Your task to perform on an android device: Go to Yahoo.com Image 0: 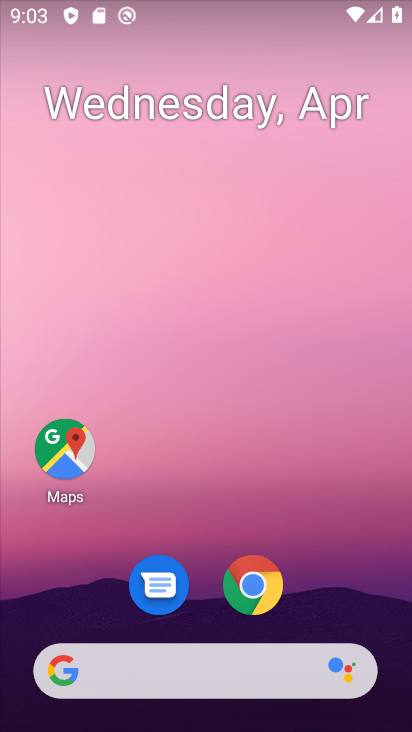
Step 0: click (237, 673)
Your task to perform on an android device: Go to Yahoo.com Image 1: 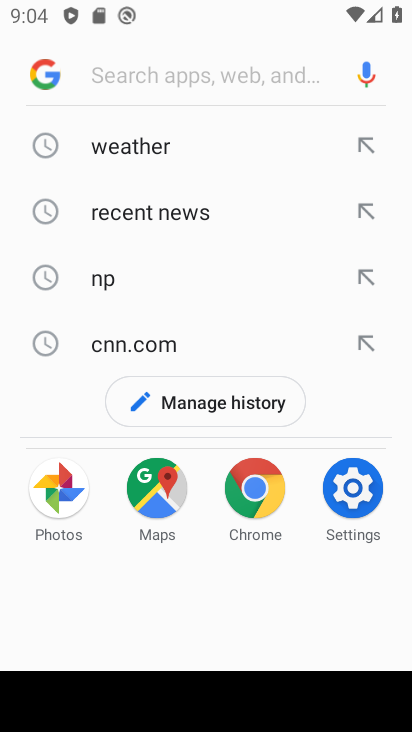
Step 1: type "yahoo.com"
Your task to perform on an android device: Go to Yahoo.com Image 2: 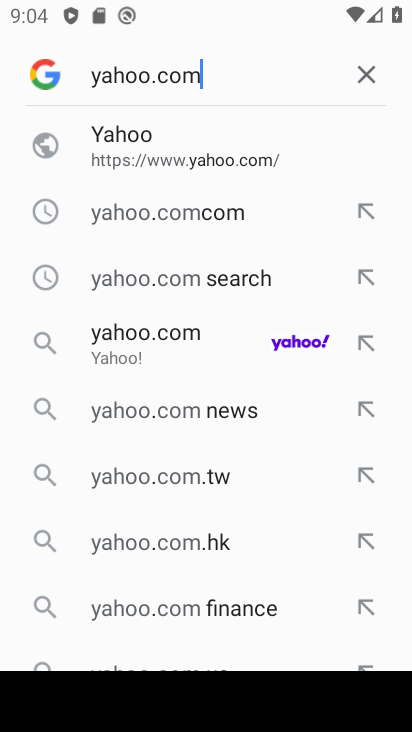
Step 2: click (301, 335)
Your task to perform on an android device: Go to Yahoo.com Image 3: 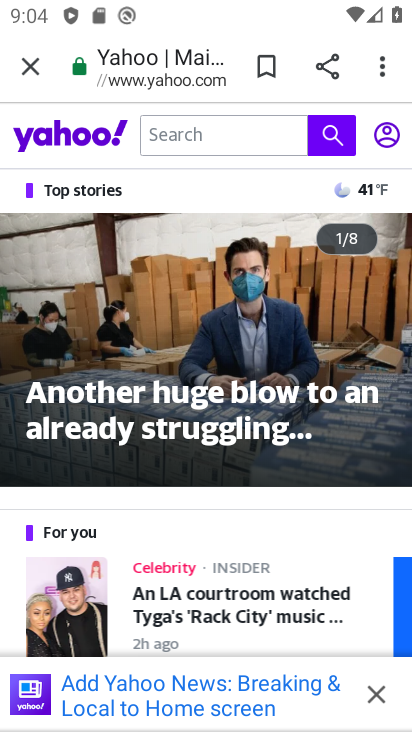
Step 3: task complete